Your task to perform on an android device: Toggle the flashlight Image 0: 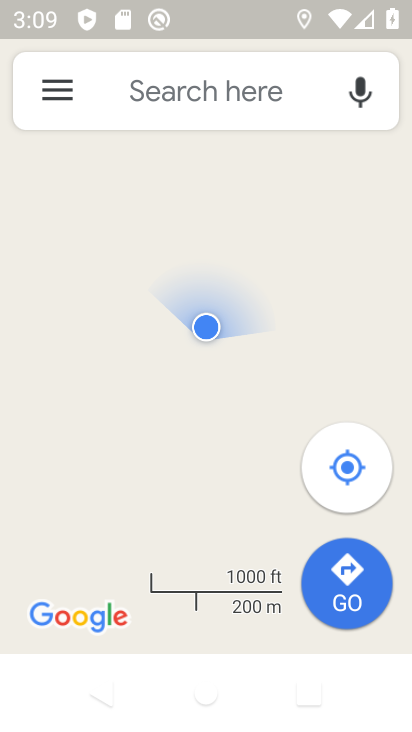
Step 0: press home button
Your task to perform on an android device: Toggle the flashlight Image 1: 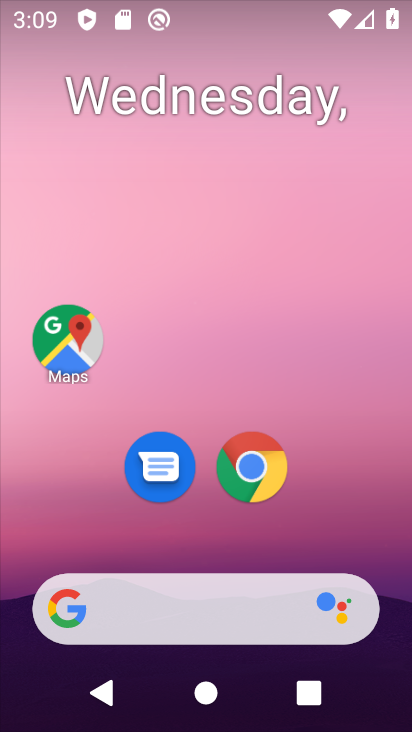
Step 1: task complete